Your task to perform on an android device: Open CNN.com Image 0: 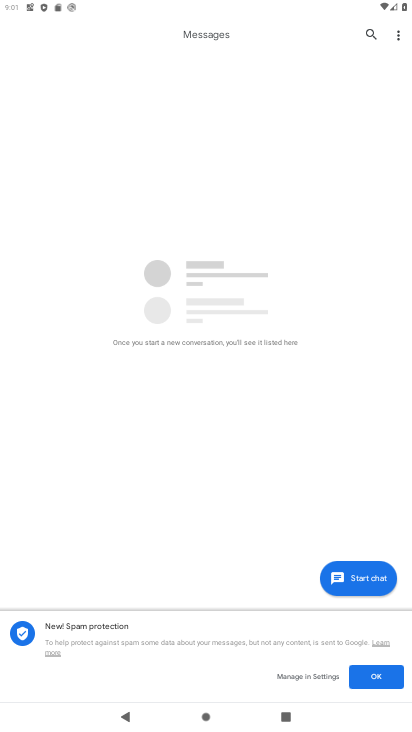
Step 0: press home button
Your task to perform on an android device: Open CNN.com Image 1: 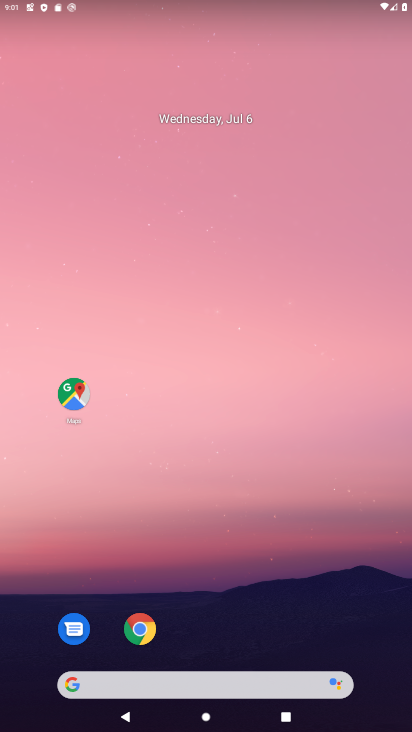
Step 1: drag from (314, 661) to (331, 55)
Your task to perform on an android device: Open CNN.com Image 2: 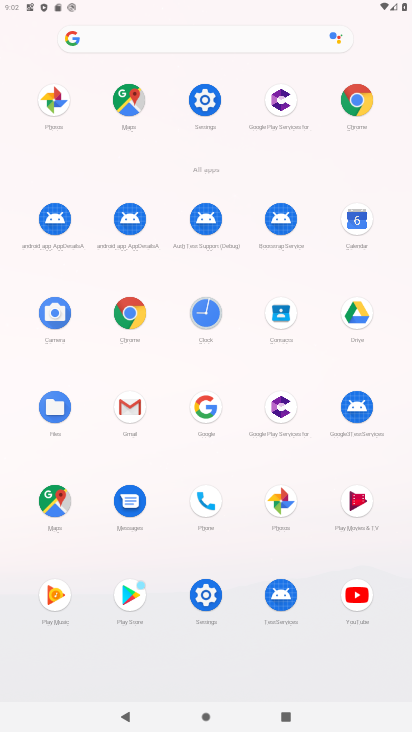
Step 2: click (116, 354)
Your task to perform on an android device: Open CNN.com Image 3: 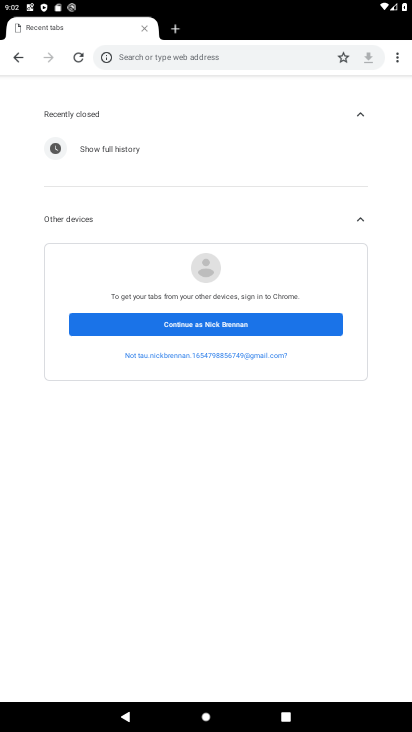
Step 3: click (254, 54)
Your task to perform on an android device: Open CNN.com Image 4: 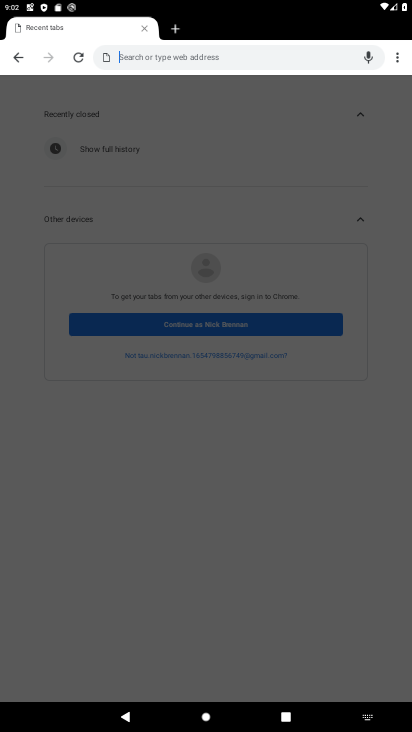
Step 4: type "open cnn.com"
Your task to perform on an android device: Open CNN.com Image 5: 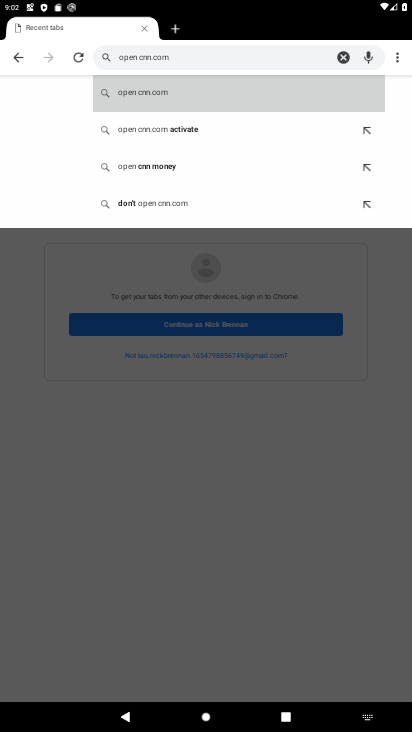
Step 5: click (153, 104)
Your task to perform on an android device: Open CNN.com Image 6: 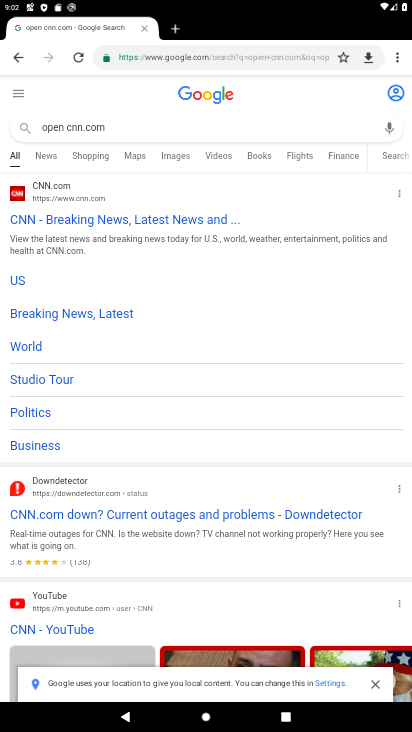
Step 6: click (58, 220)
Your task to perform on an android device: Open CNN.com Image 7: 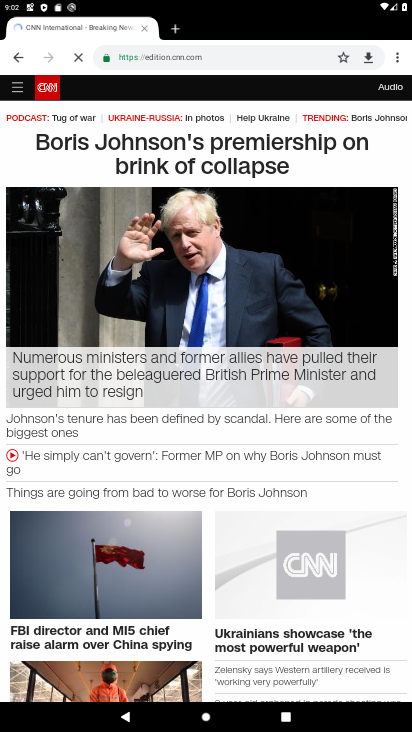
Step 7: task complete